Your task to perform on an android device: Set the phone to "Do not disturb". Image 0: 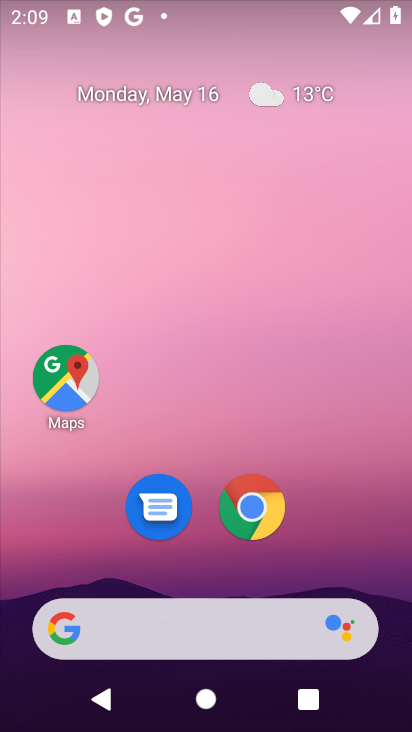
Step 0: drag from (263, 576) to (292, 196)
Your task to perform on an android device: Set the phone to "Do not disturb". Image 1: 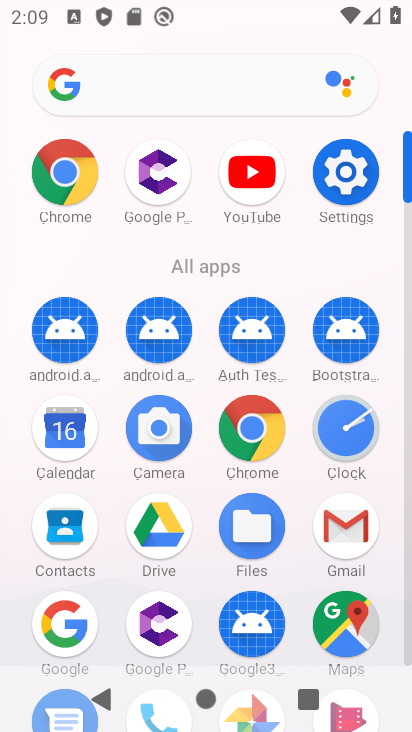
Step 1: click (338, 204)
Your task to perform on an android device: Set the phone to "Do not disturb". Image 2: 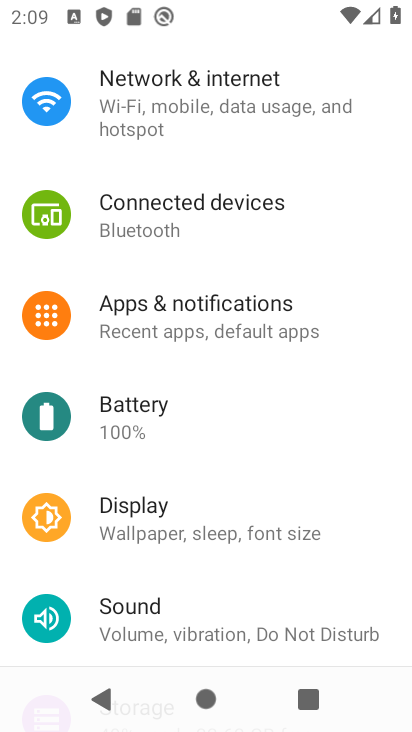
Step 2: click (290, 627)
Your task to perform on an android device: Set the phone to "Do not disturb". Image 3: 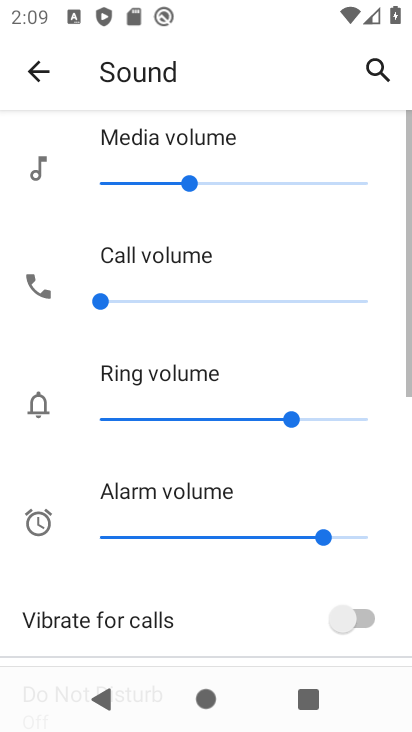
Step 3: drag from (228, 606) to (245, 128)
Your task to perform on an android device: Set the phone to "Do not disturb". Image 4: 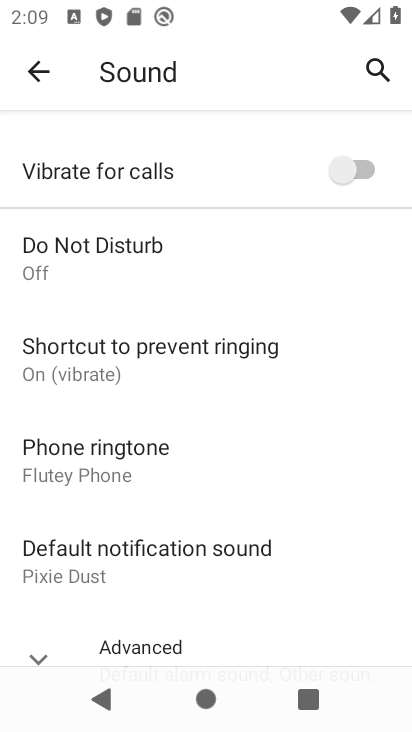
Step 4: click (187, 261)
Your task to perform on an android device: Set the phone to "Do not disturb". Image 5: 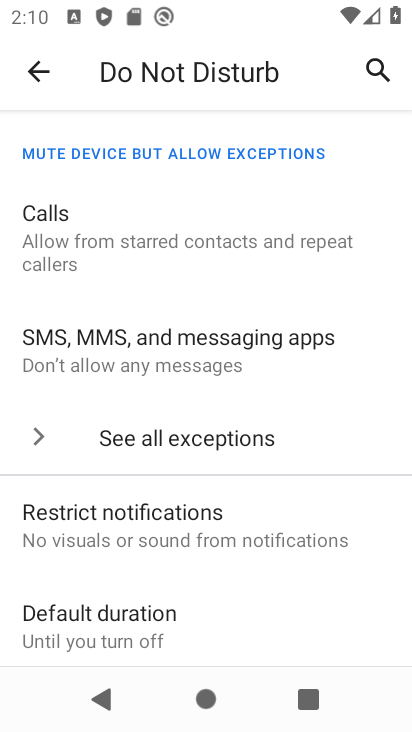
Step 5: drag from (192, 558) to (261, 123)
Your task to perform on an android device: Set the phone to "Do not disturb". Image 6: 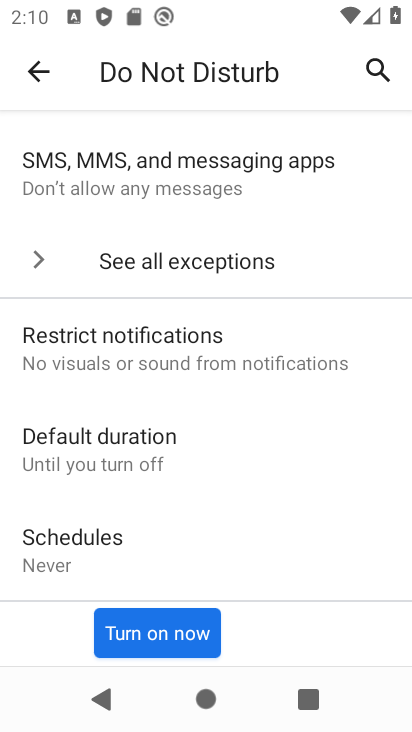
Step 6: click (180, 624)
Your task to perform on an android device: Set the phone to "Do not disturb". Image 7: 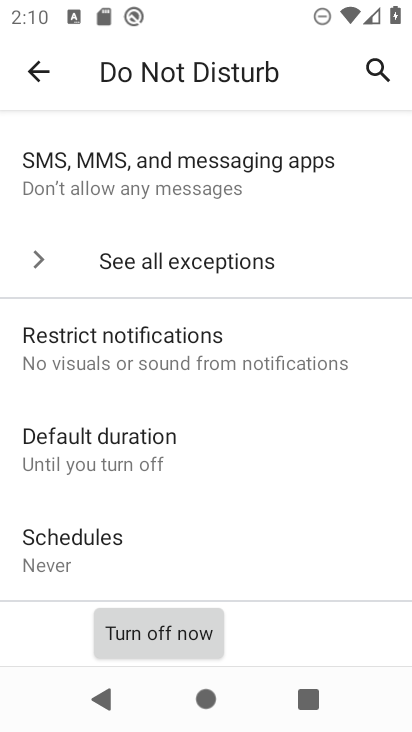
Step 7: task complete